Your task to perform on an android device: Open the calendar and show me this week's events? Image 0: 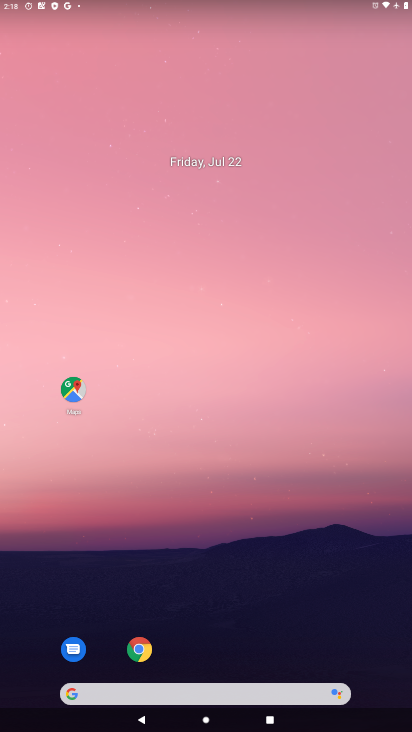
Step 0: drag from (386, 599) to (274, 96)
Your task to perform on an android device: Open the calendar and show me this week's events? Image 1: 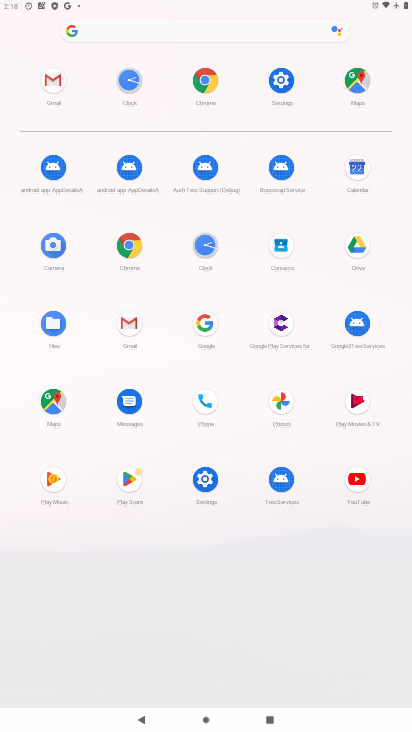
Step 1: click (363, 169)
Your task to perform on an android device: Open the calendar and show me this week's events? Image 2: 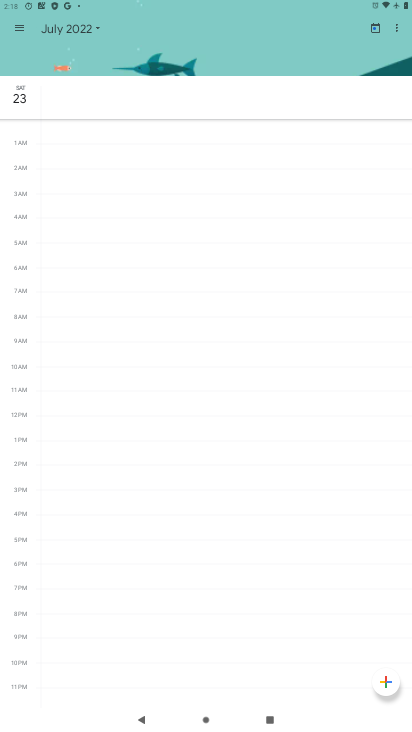
Step 2: click (18, 27)
Your task to perform on an android device: Open the calendar and show me this week's events? Image 3: 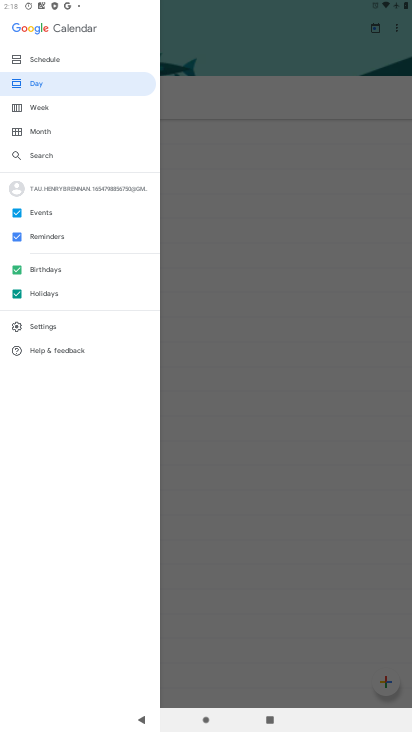
Step 3: click (41, 110)
Your task to perform on an android device: Open the calendar and show me this week's events? Image 4: 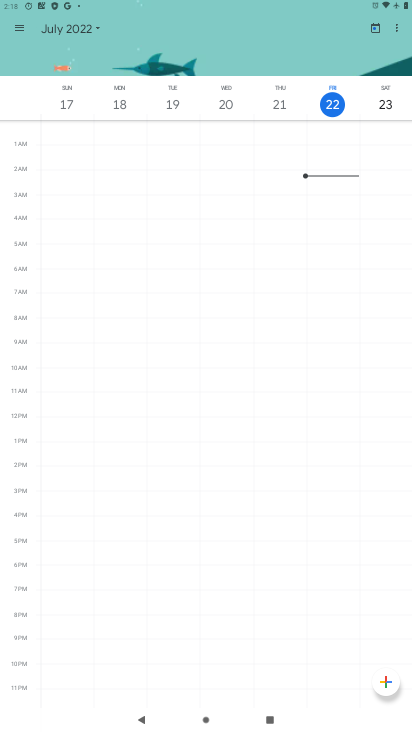
Step 4: task complete